Your task to perform on an android device: Show me the alarms in the clock app Image 0: 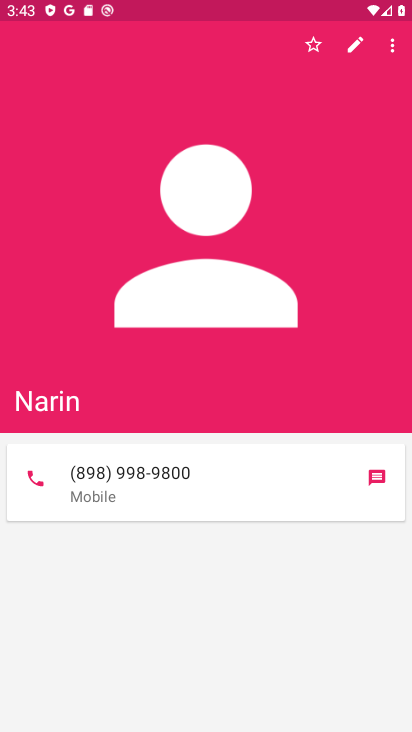
Step 0: press home button
Your task to perform on an android device: Show me the alarms in the clock app Image 1: 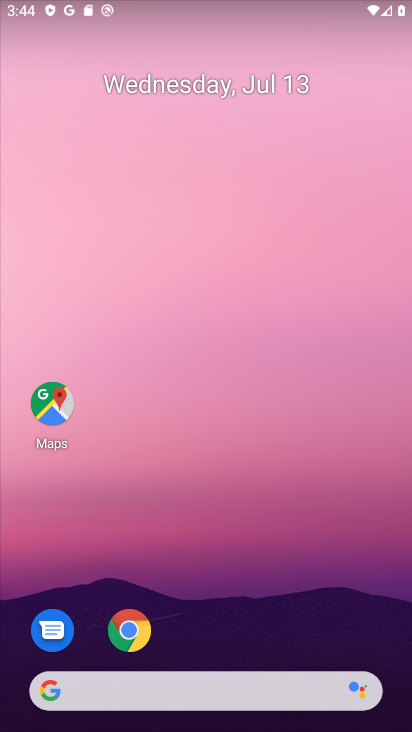
Step 1: drag from (216, 154) to (305, 50)
Your task to perform on an android device: Show me the alarms in the clock app Image 2: 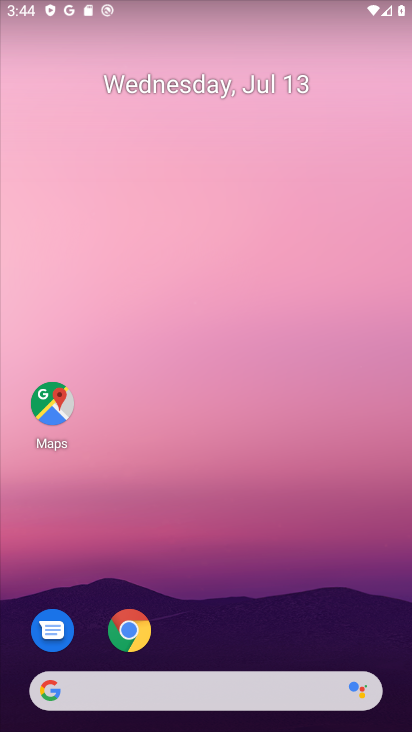
Step 2: drag from (187, 590) to (313, 8)
Your task to perform on an android device: Show me the alarms in the clock app Image 3: 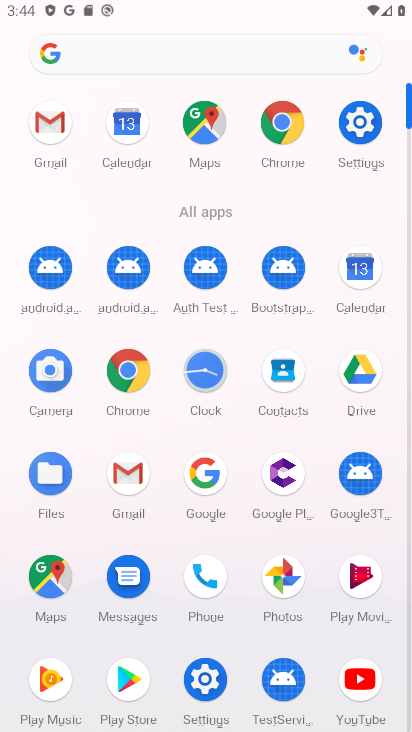
Step 3: click (194, 372)
Your task to perform on an android device: Show me the alarms in the clock app Image 4: 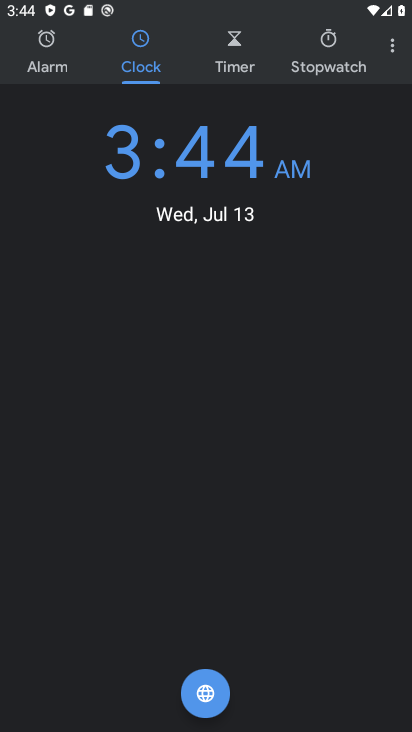
Step 4: click (65, 78)
Your task to perform on an android device: Show me the alarms in the clock app Image 5: 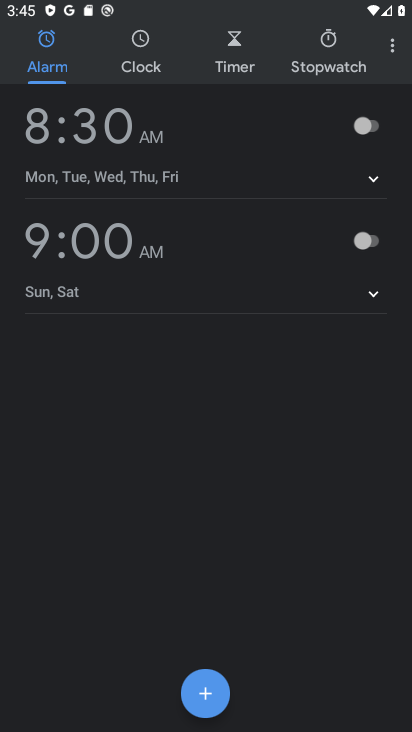
Step 5: task complete